Your task to perform on an android device: open the mobile data screen to see how much data has been used Image 0: 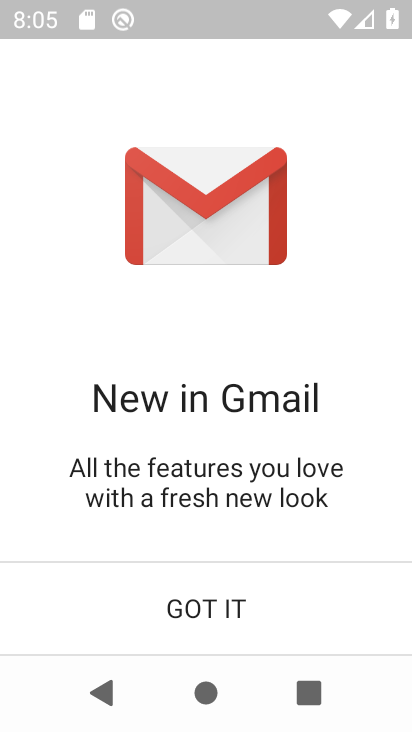
Step 0: press home button
Your task to perform on an android device: open the mobile data screen to see how much data has been used Image 1: 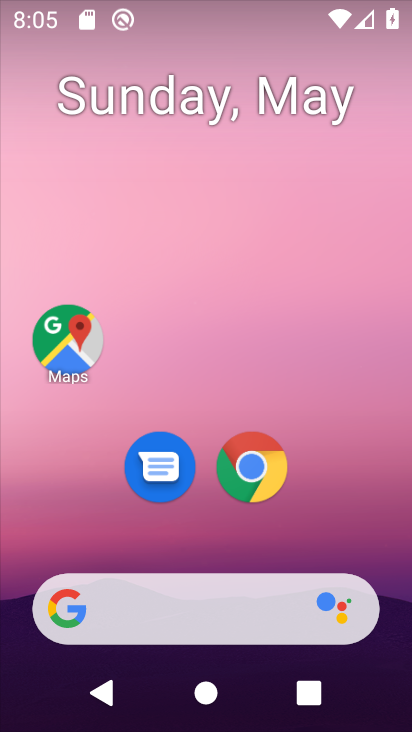
Step 1: drag from (250, 517) to (284, 130)
Your task to perform on an android device: open the mobile data screen to see how much data has been used Image 2: 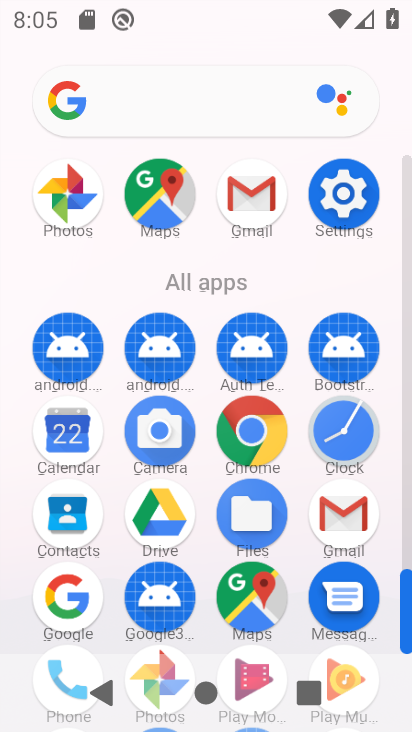
Step 2: click (358, 195)
Your task to perform on an android device: open the mobile data screen to see how much data has been used Image 3: 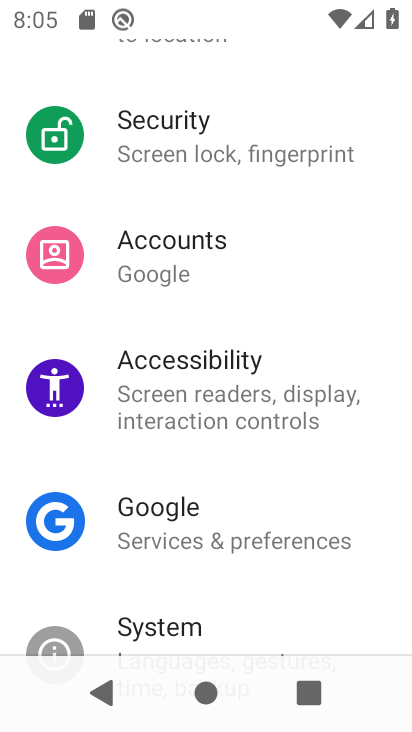
Step 3: drag from (300, 149) to (277, 541)
Your task to perform on an android device: open the mobile data screen to see how much data has been used Image 4: 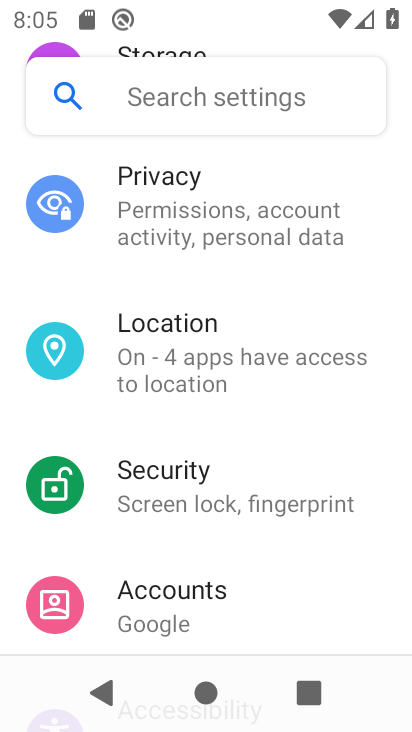
Step 4: drag from (305, 214) to (306, 595)
Your task to perform on an android device: open the mobile data screen to see how much data has been used Image 5: 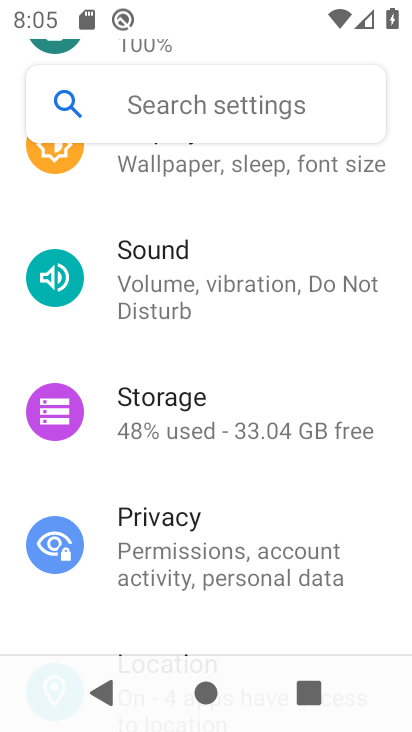
Step 5: drag from (278, 339) to (323, 631)
Your task to perform on an android device: open the mobile data screen to see how much data has been used Image 6: 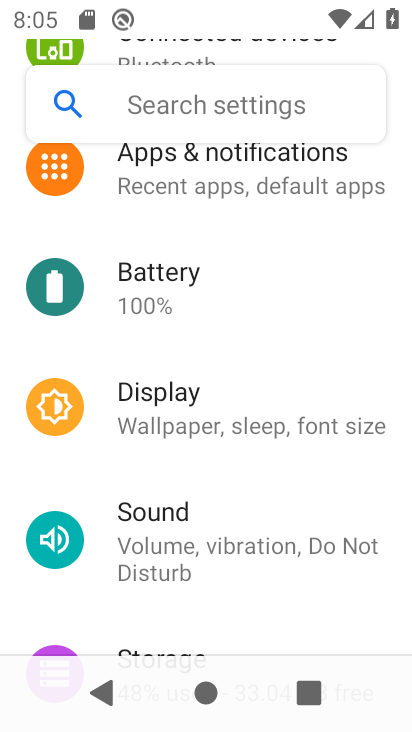
Step 6: drag from (305, 332) to (302, 581)
Your task to perform on an android device: open the mobile data screen to see how much data has been used Image 7: 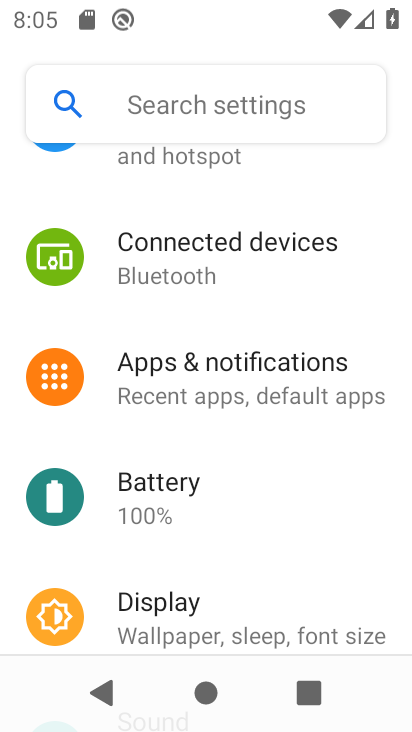
Step 7: drag from (249, 234) to (265, 657)
Your task to perform on an android device: open the mobile data screen to see how much data has been used Image 8: 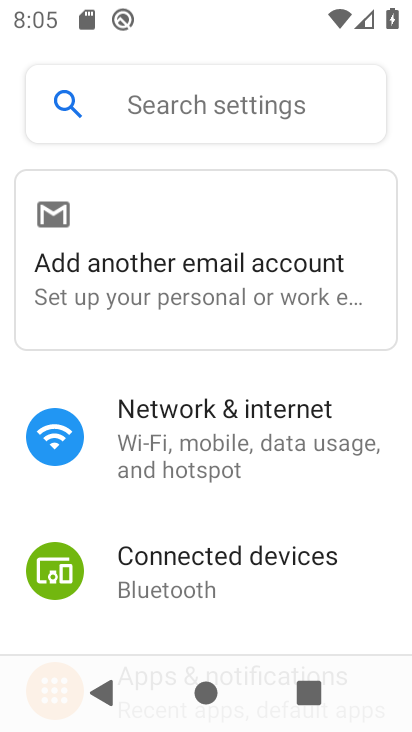
Step 8: click (253, 417)
Your task to perform on an android device: open the mobile data screen to see how much data has been used Image 9: 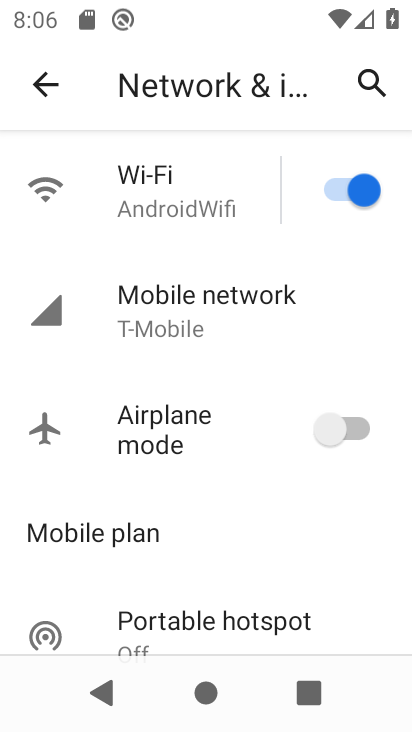
Step 9: click (169, 328)
Your task to perform on an android device: open the mobile data screen to see how much data has been used Image 10: 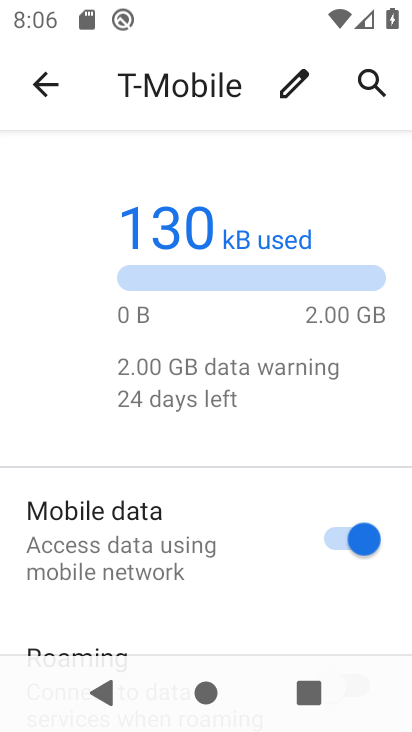
Step 10: task complete